Your task to perform on an android device: add a contact in the contacts app Image 0: 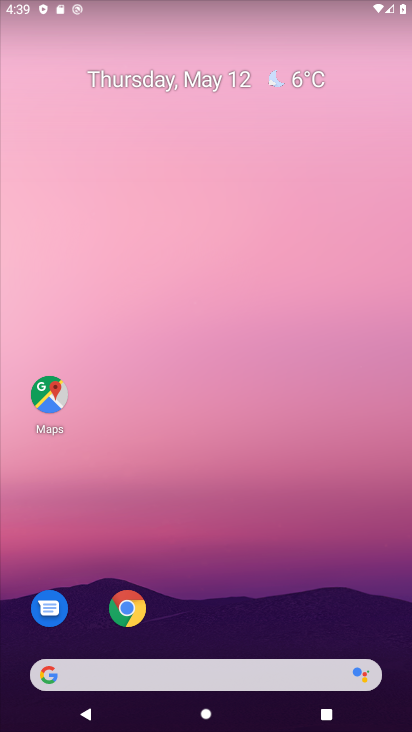
Step 0: drag from (267, 586) to (319, 128)
Your task to perform on an android device: add a contact in the contacts app Image 1: 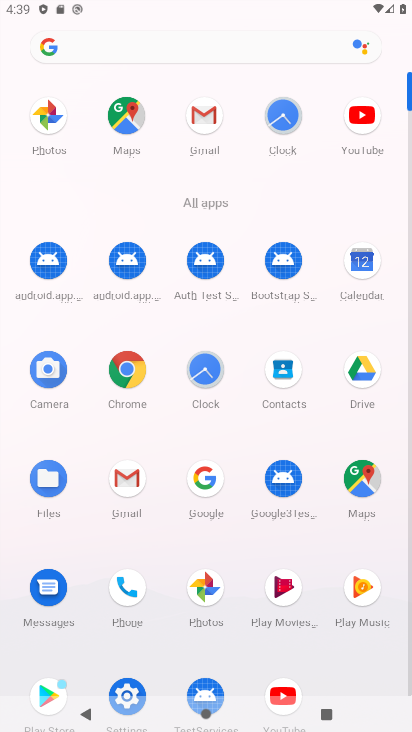
Step 1: click (278, 361)
Your task to perform on an android device: add a contact in the contacts app Image 2: 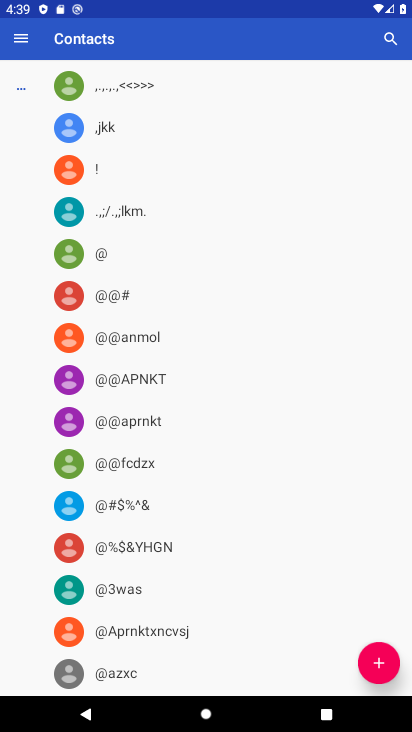
Step 2: click (385, 659)
Your task to perform on an android device: add a contact in the contacts app Image 3: 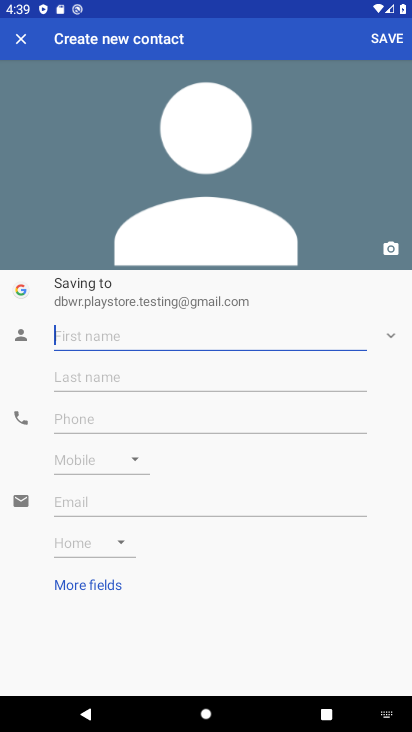
Step 3: type "bbvvvn"
Your task to perform on an android device: add a contact in the contacts app Image 4: 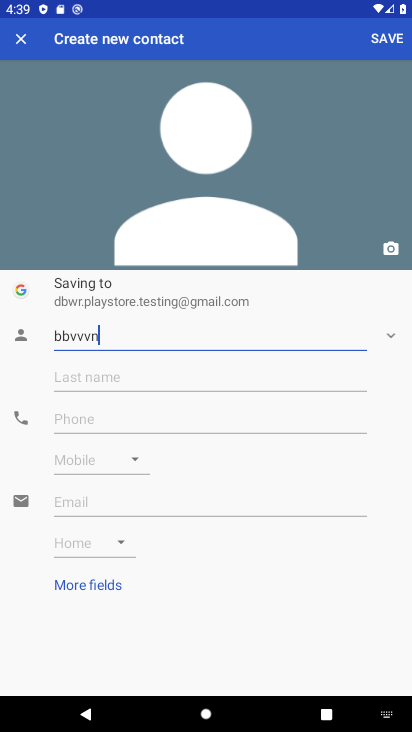
Step 4: click (96, 427)
Your task to perform on an android device: add a contact in the contacts app Image 5: 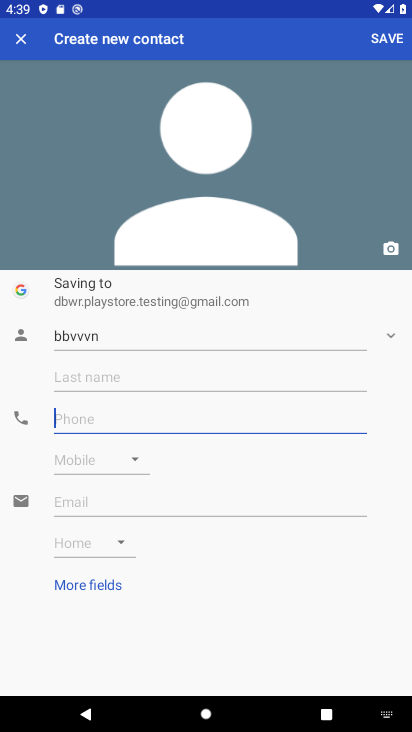
Step 5: type "22765"
Your task to perform on an android device: add a contact in the contacts app Image 6: 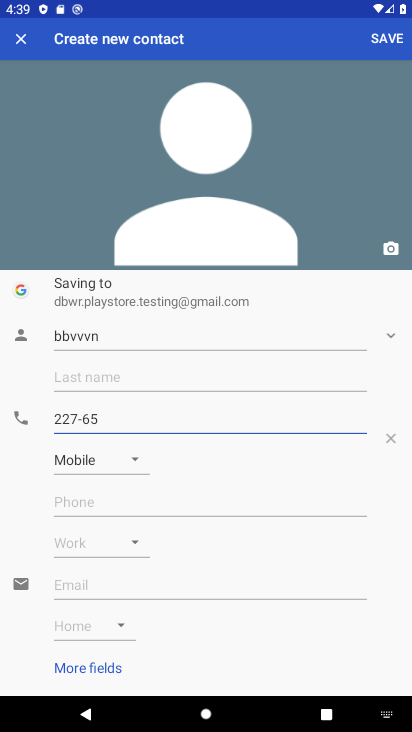
Step 6: click (396, 44)
Your task to perform on an android device: add a contact in the contacts app Image 7: 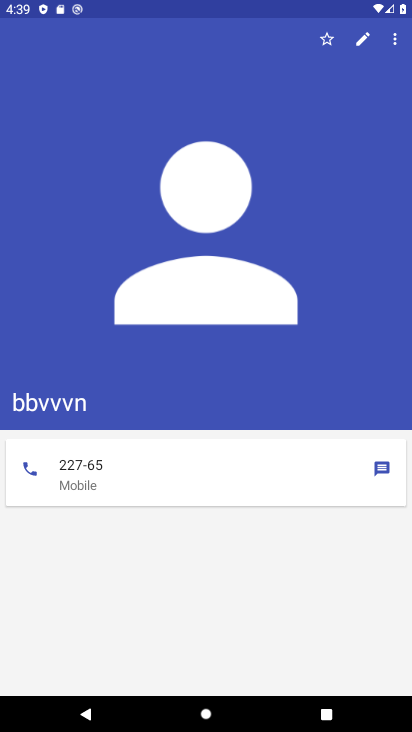
Step 7: task complete